Your task to perform on an android device: Turn off the flashlight Image 0: 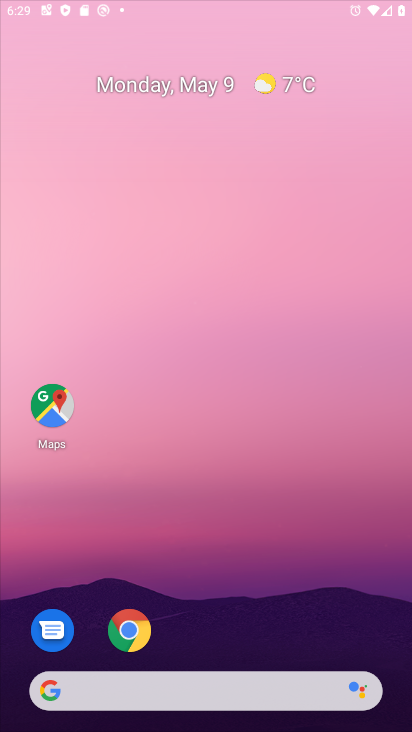
Step 0: drag from (324, 608) to (327, 66)
Your task to perform on an android device: Turn off the flashlight Image 1: 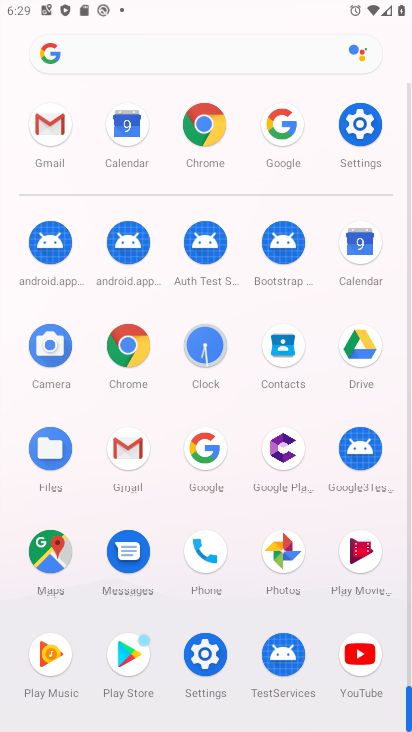
Step 1: click (251, 52)
Your task to perform on an android device: Turn off the flashlight Image 2: 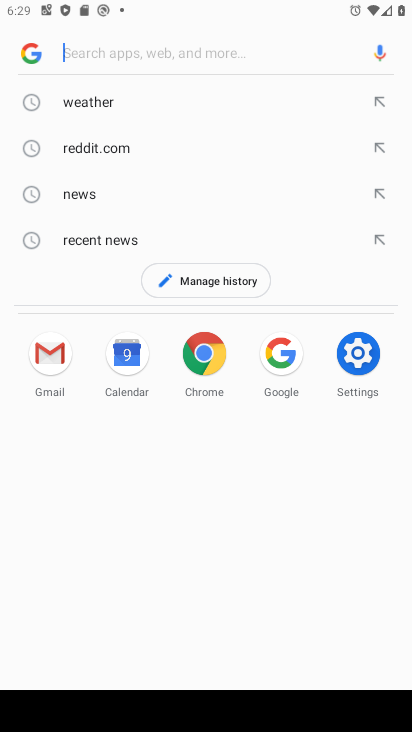
Step 2: task complete